Your task to perform on an android device: install app "Cash App" Image 0: 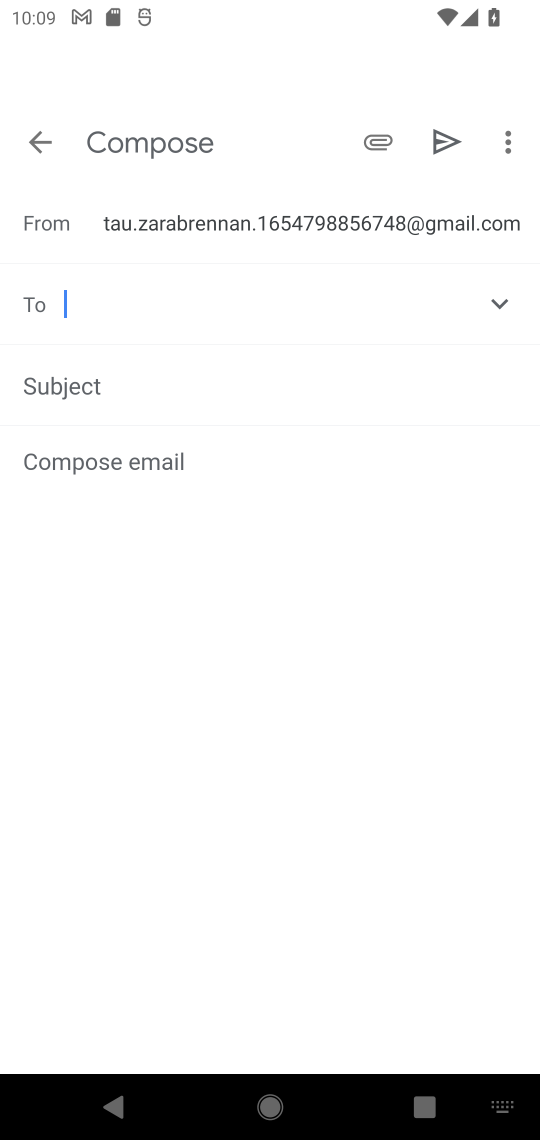
Step 0: press home button
Your task to perform on an android device: install app "Cash App" Image 1: 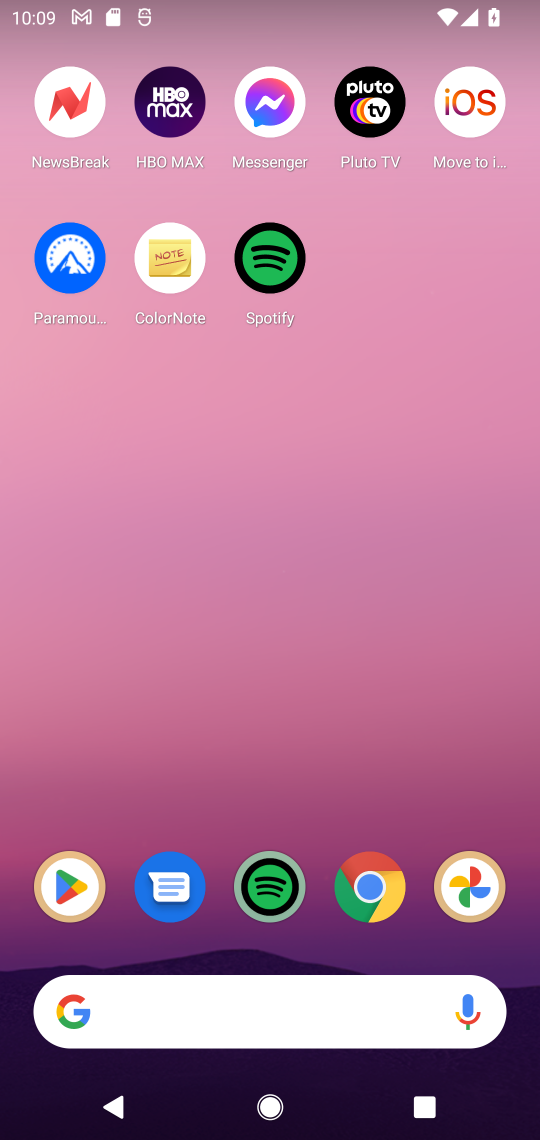
Step 1: click (85, 898)
Your task to perform on an android device: install app "Cash App" Image 2: 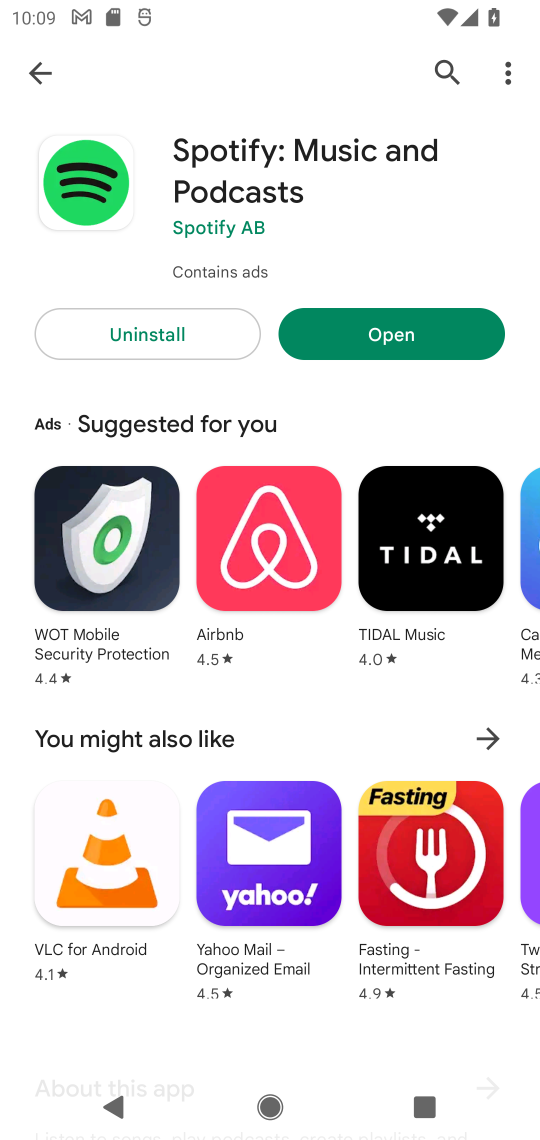
Step 2: click (434, 80)
Your task to perform on an android device: install app "Cash App" Image 3: 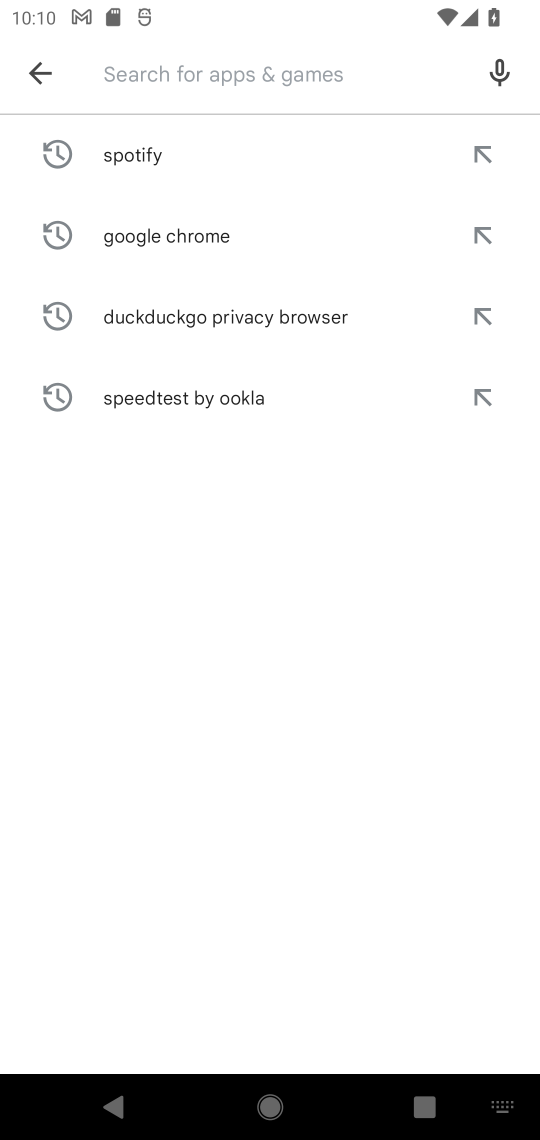
Step 3: type "cash app"
Your task to perform on an android device: install app "Cash App" Image 4: 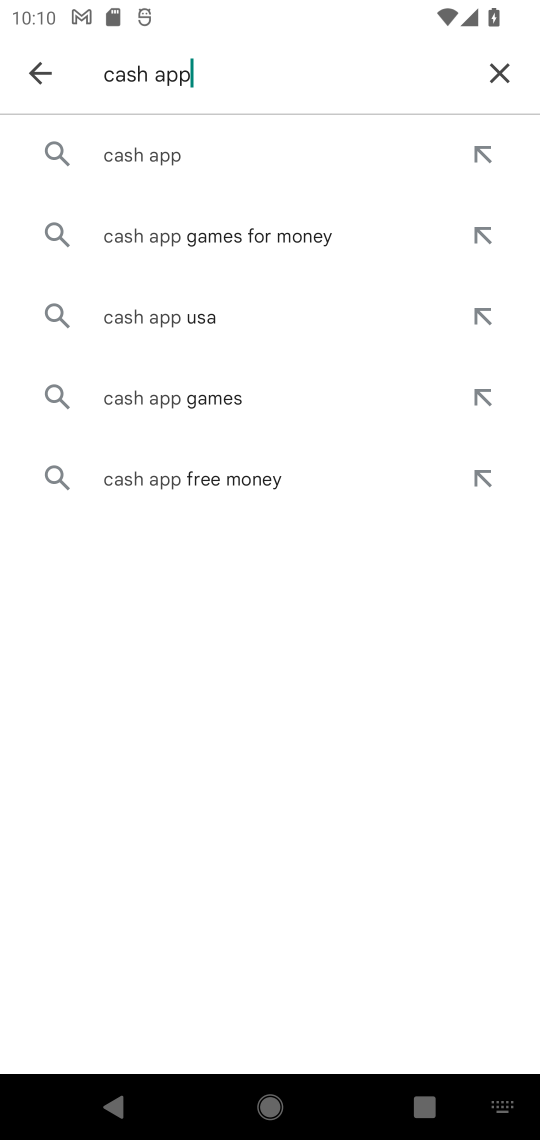
Step 4: click (263, 148)
Your task to perform on an android device: install app "Cash App" Image 5: 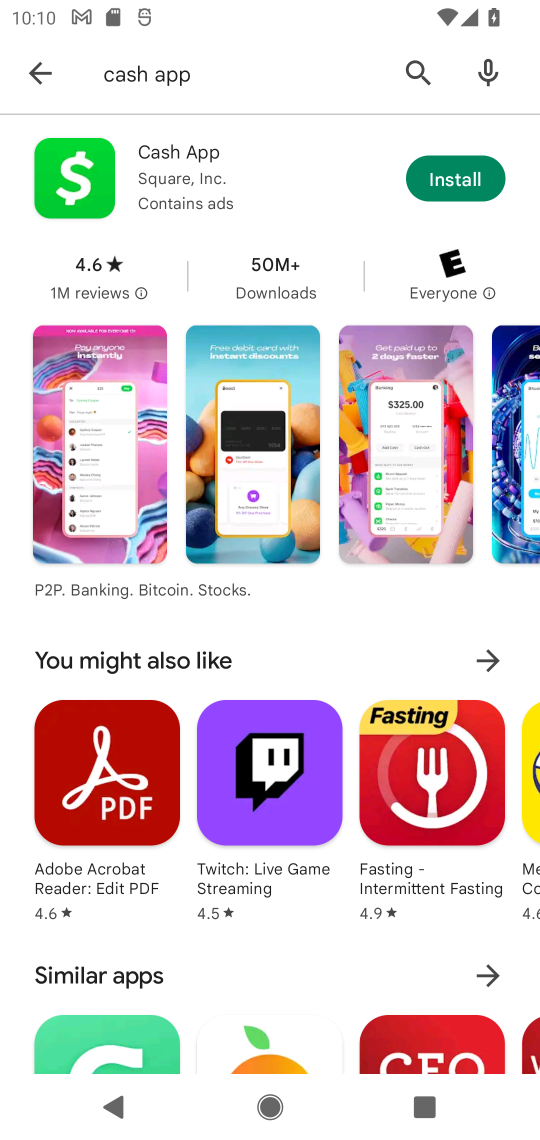
Step 5: click (195, 158)
Your task to perform on an android device: install app "Cash App" Image 6: 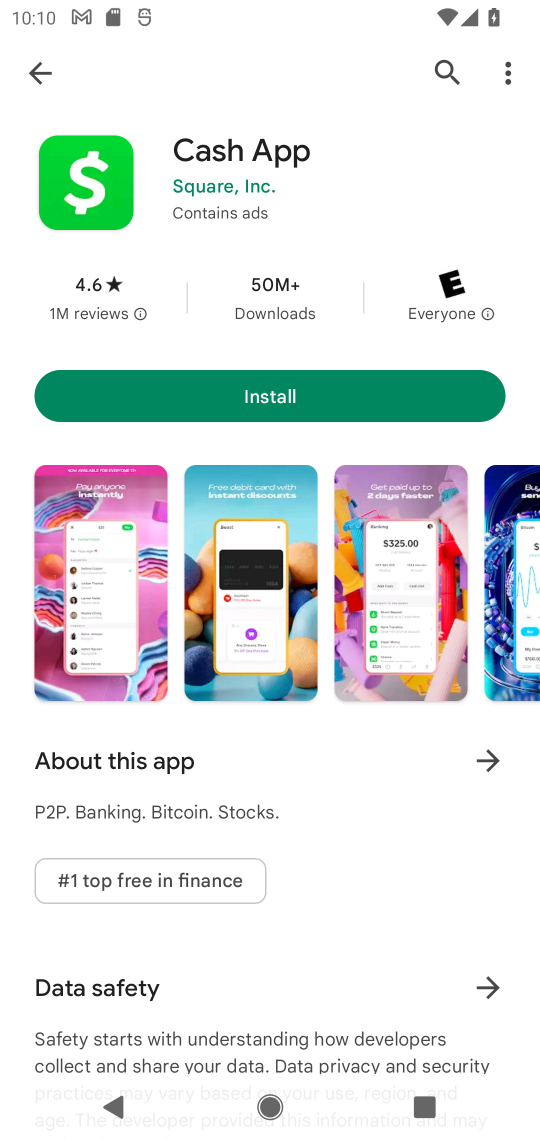
Step 6: click (456, 402)
Your task to perform on an android device: install app "Cash App" Image 7: 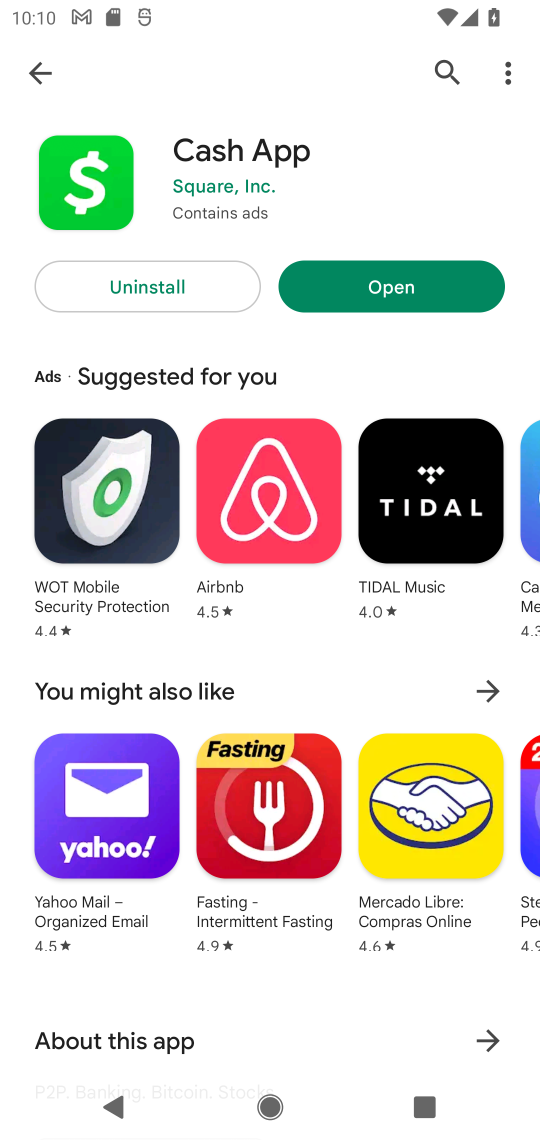
Step 7: task complete